Your task to perform on an android device: manage bookmarks in the chrome app Image 0: 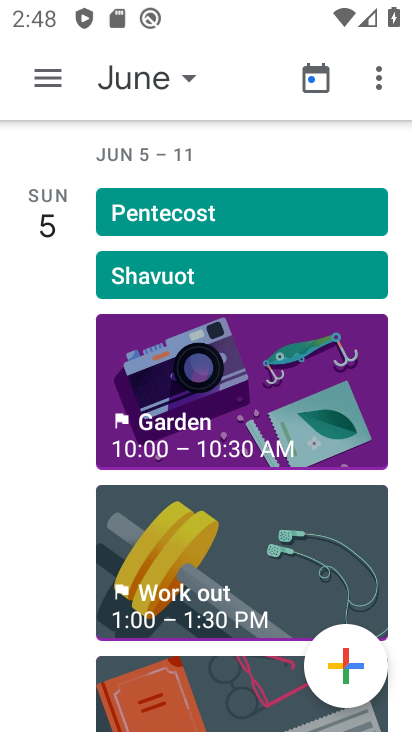
Step 0: press home button
Your task to perform on an android device: manage bookmarks in the chrome app Image 1: 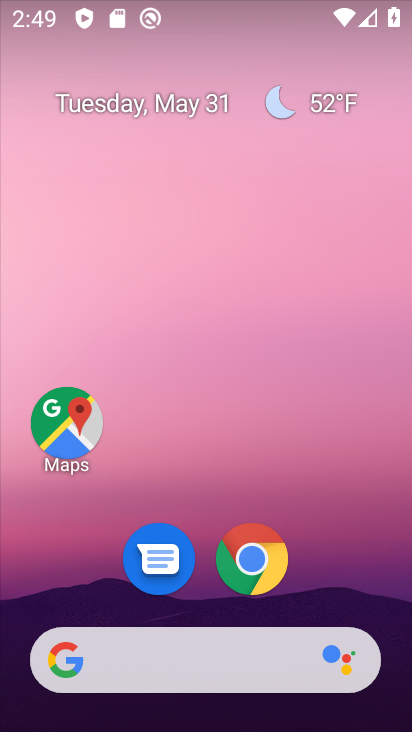
Step 1: click (231, 575)
Your task to perform on an android device: manage bookmarks in the chrome app Image 2: 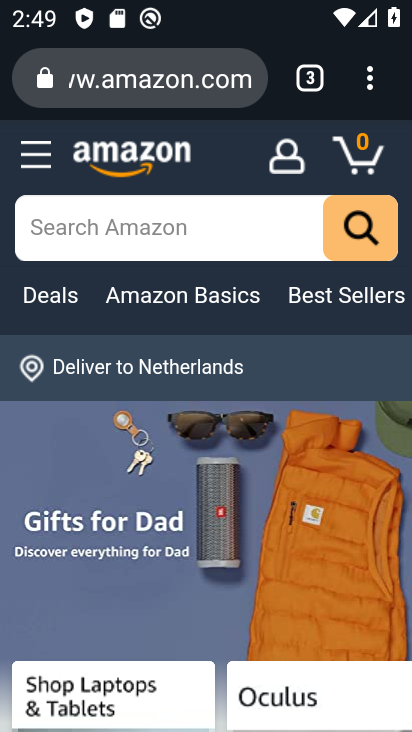
Step 2: click (361, 80)
Your task to perform on an android device: manage bookmarks in the chrome app Image 3: 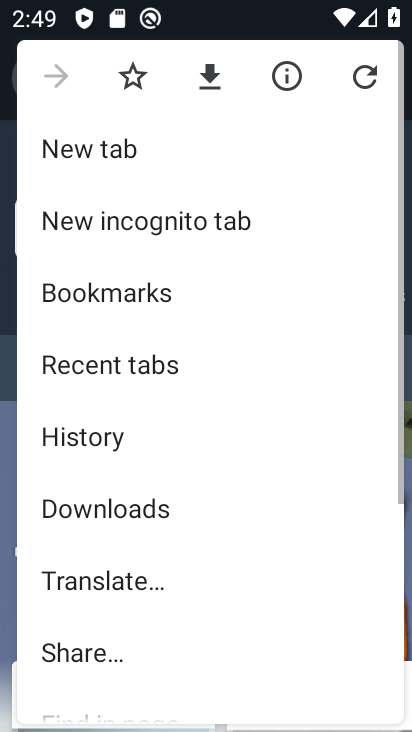
Step 3: click (181, 281)
Your task to perform on an android device: manage bookmarks in the chrome app Image 4: 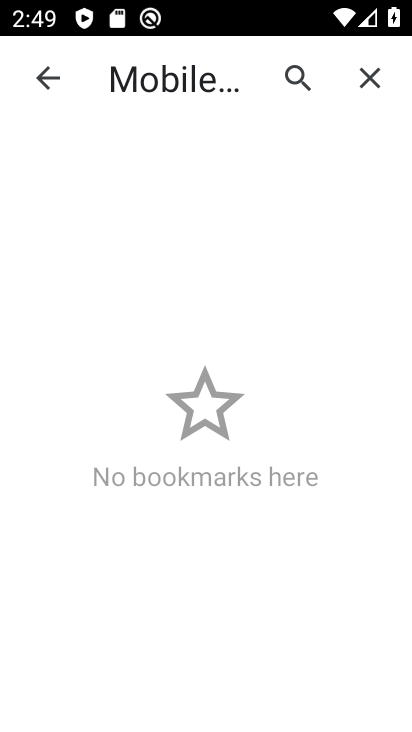
Step 4: task complete